Your task to perform on an android device: Open Yahoo.com Image 0: 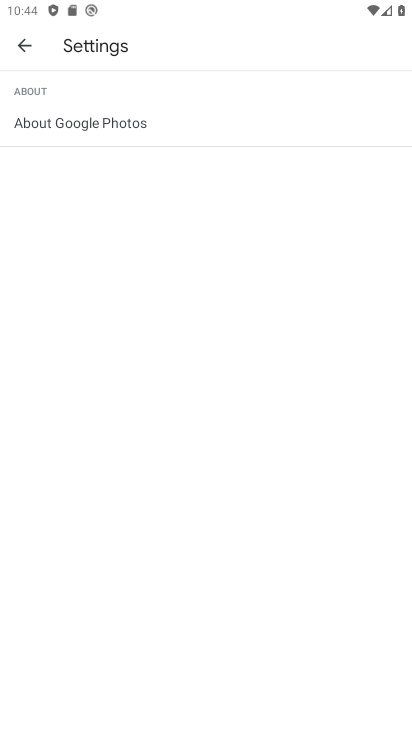
Step 0: press home button
Your task to perform on an android device: Open Yahoo.com Image 1: 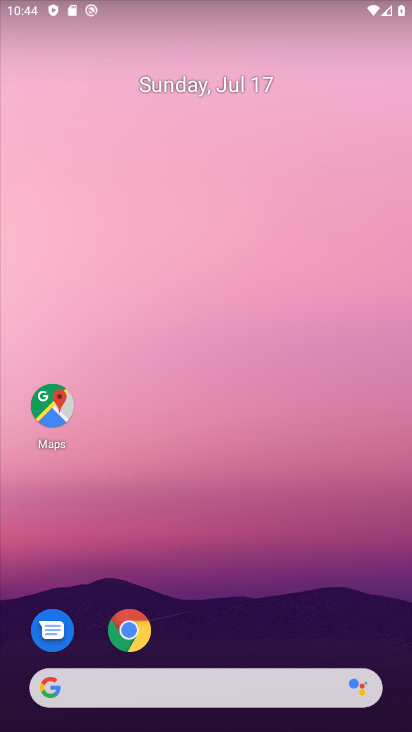
Step 1: click (115, 639)
Your task to perform on an android device: Open Yahoo.com Image 2: 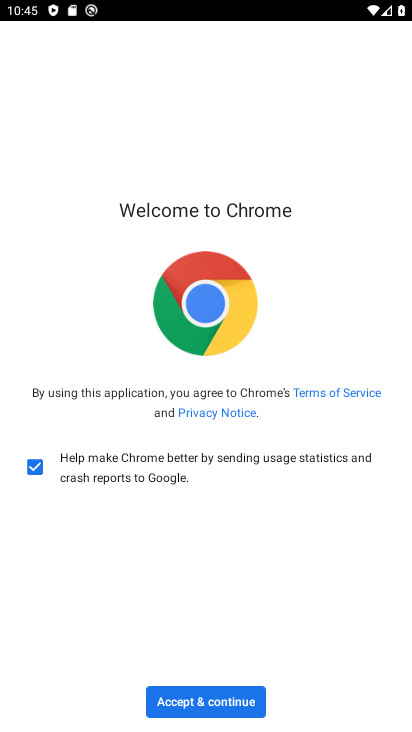
Step 2: click (222, 698)
Your task to perform on an android device: Open Yahoo.com Image 3: 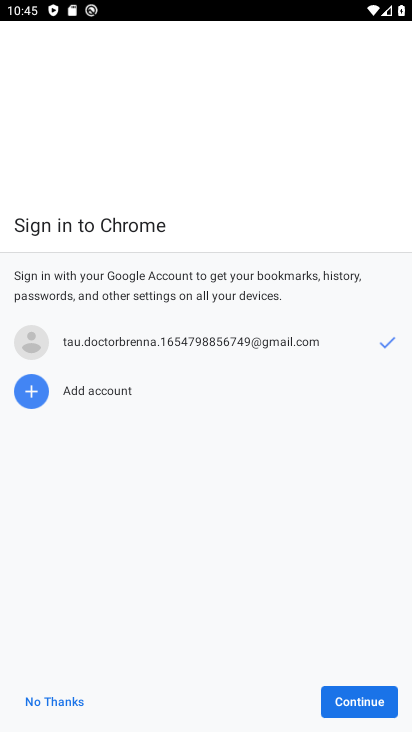
Step 3: click (380, 697)
Your task to perform on an android device: Open Yahoo.com Image 4: 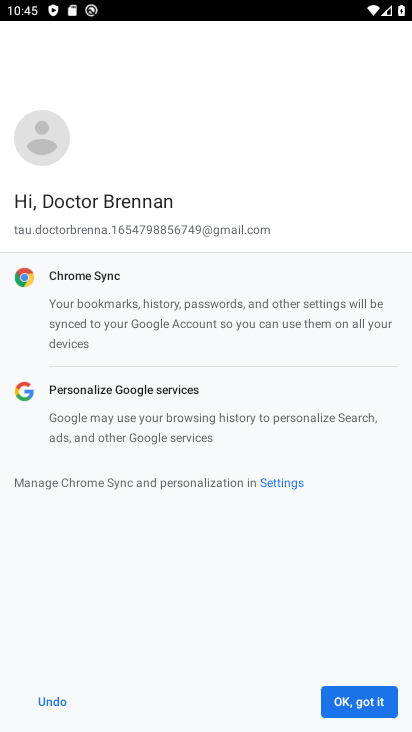
Step 4: click (386, 688)
Your task to perform on an android device: Open Yahoo.com Image 5: 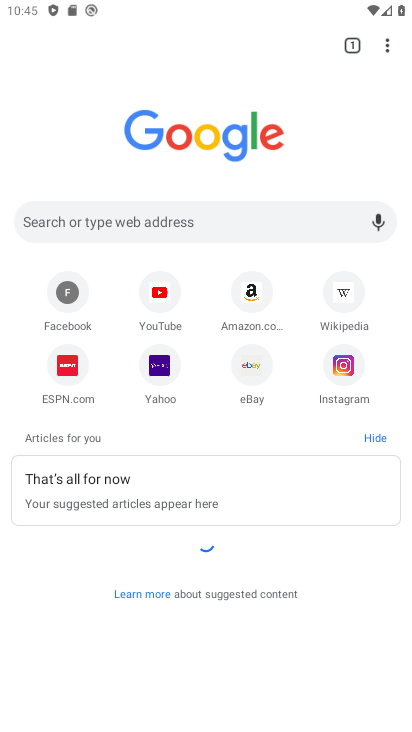
Step 5: click (160, 375)
Your task to perform on an android device: Open Yahoo.com Image 6: 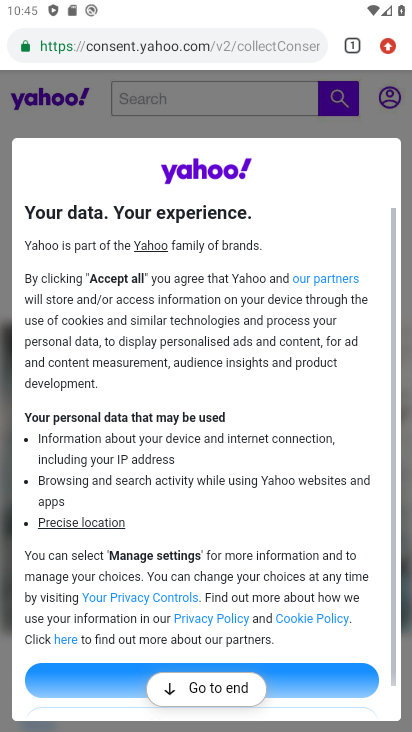
Step 6: click (229, 684)
Your task to perform on an android device: Open Yahoo.com Image 7: 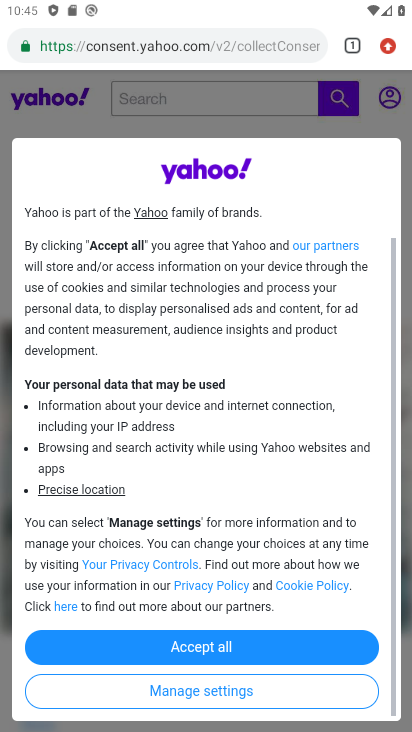
Step 7: click (233, 652)
Your task to perform on an android device: Open Yahoo.com Image 8: 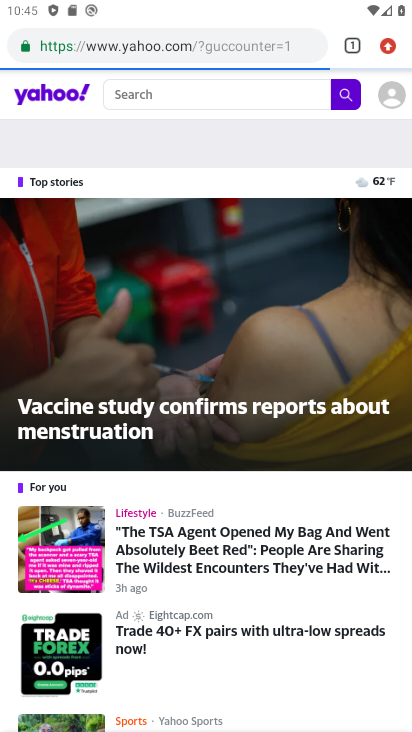
Step 8: task complete